Your task to perform on an android device: create a new album in the google photos Image 0: 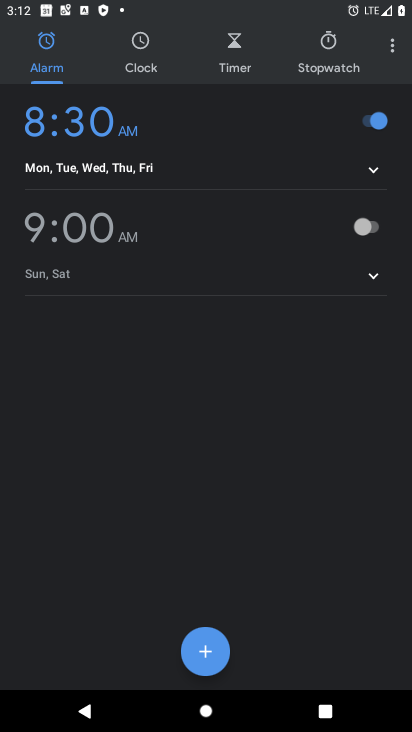
Step 0: press home button
Your task to perform on an android device: create a new album in the google photos Image 1: 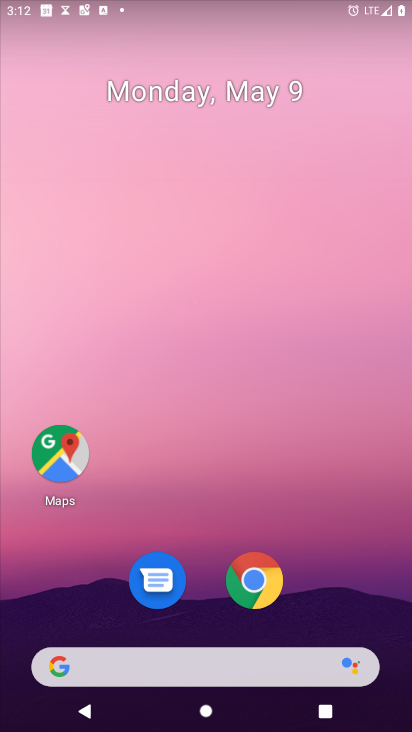
Step 1: drag from (369, 609) to (326, 103)
Your task to perform on an android device: create a new album in the google photos Image 2: 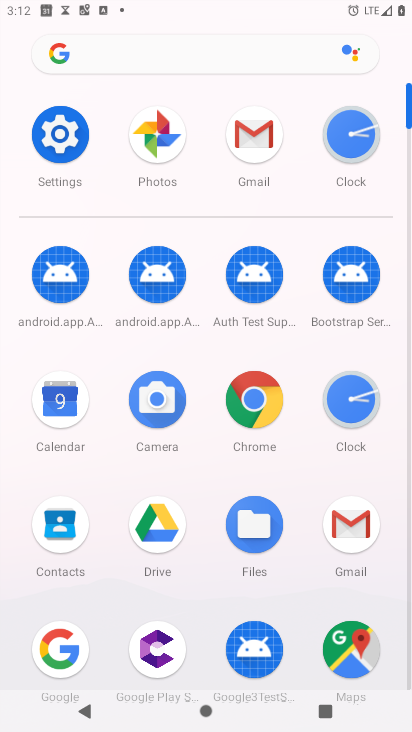
Step 2: drag from (306, 608) to (298, 311)
Your task to perform on an android device: create a new album in the google photos Image 3: 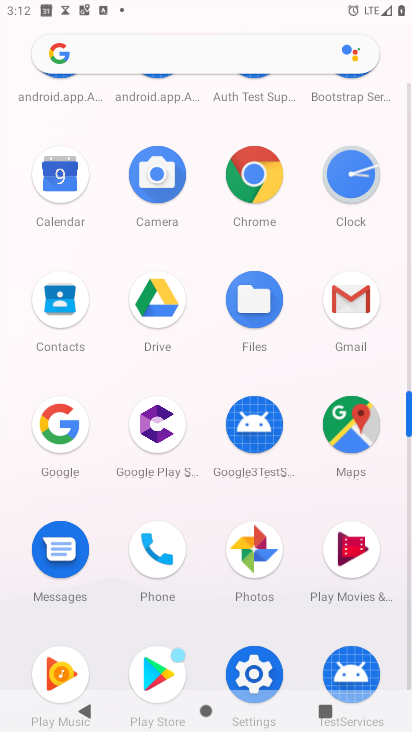
Step 3: click (284, 532)
Your task to perform on an android device: create a new album in the google photos Image 4: 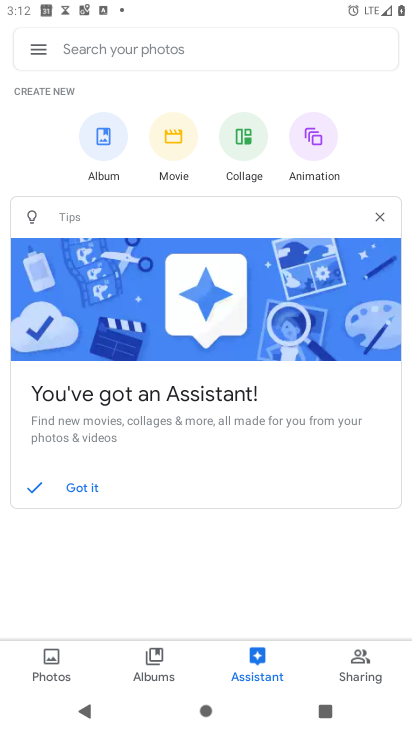
Step 4: click (156, 672)
Your task to perform on an android device: create a new album in the google photos Image 5: 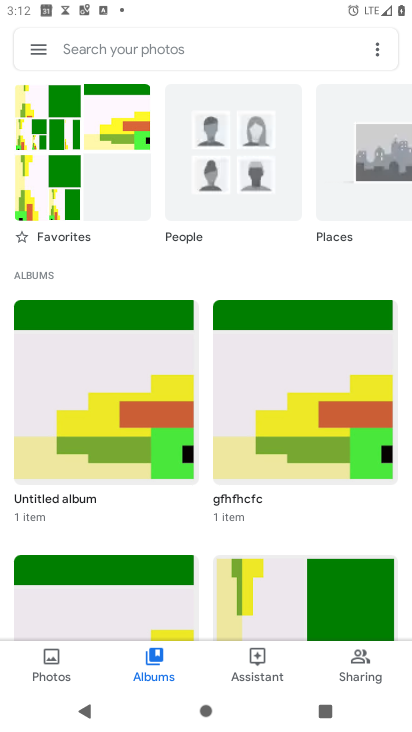
Step 5: click (208, 481)
Your task to perform on an android device: create a new album in the google photos Image 6: 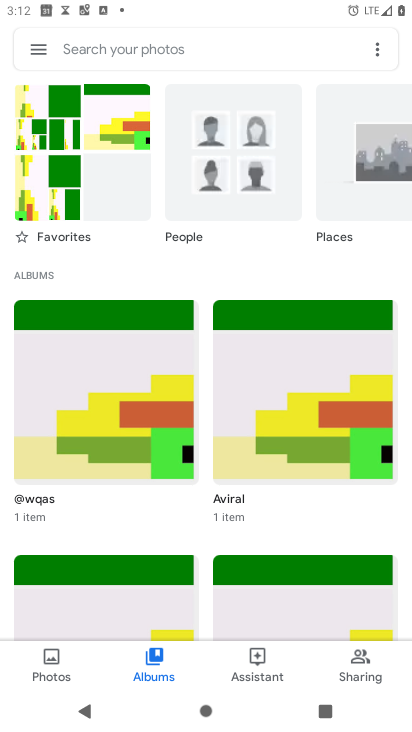
Step 6: click (376, 46)
Your task to perform on an android device: create a new album in the google photos Image 7: 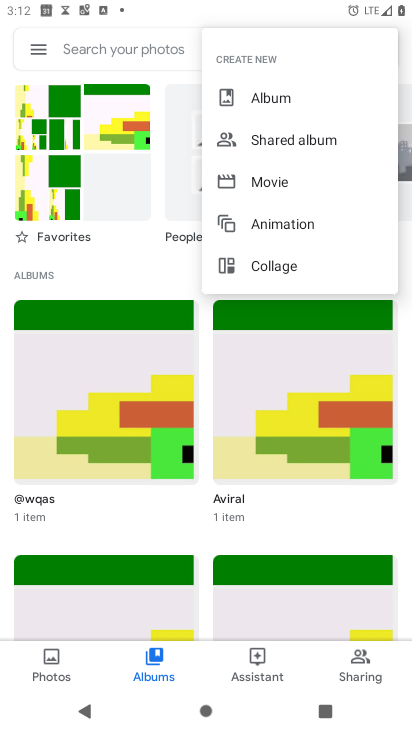
Step 7: click (265, 102)
Your task to perform on an android device: create a new album in the google photos Image 8: 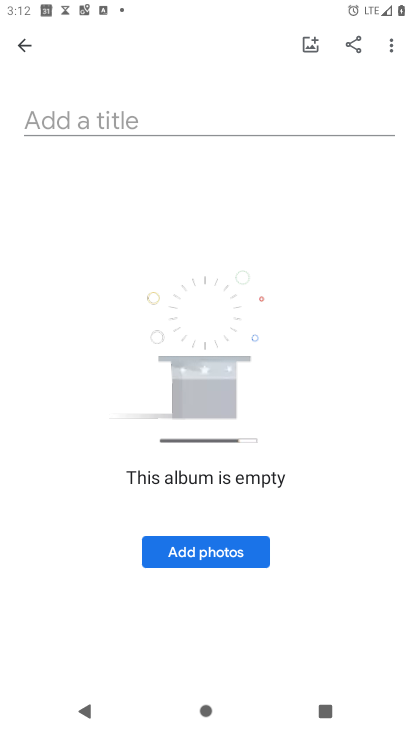
Step 8: click (157, 119)
Your task to perform on an android device: create a new album in the google photos Image 9: 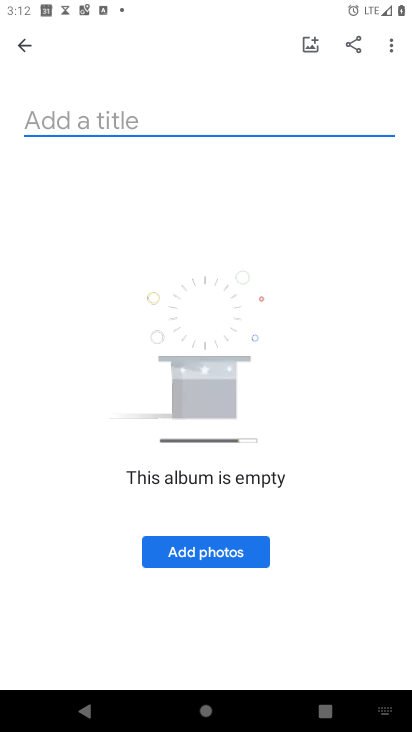
Step 9: type "tfjgjhgjhj"
Your task to perform on an android device: create a new album in the google photos Image 10: 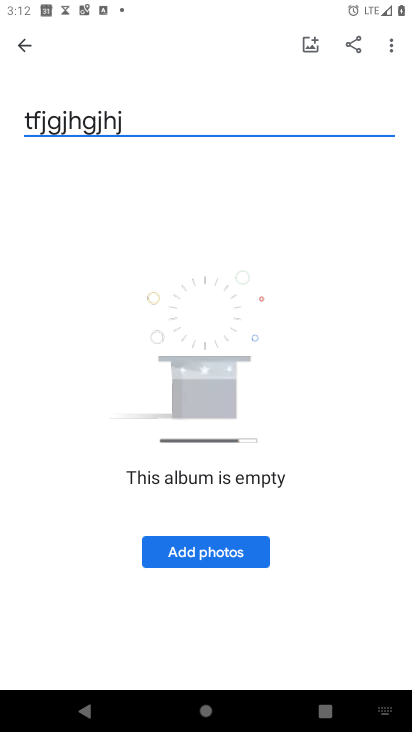
Step 10: click (250, 554)
Your task to perform on an android device: create a new album in the google photos Image 11: 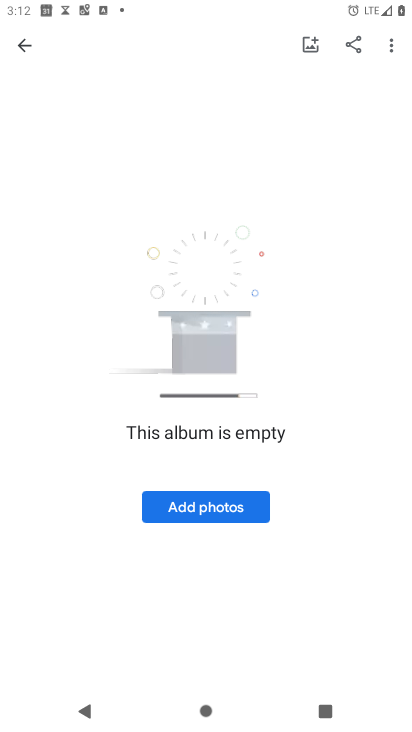
Step 11: click (233, 502)
Your task to perform on an android device: create a new album in the google photos Image 12: 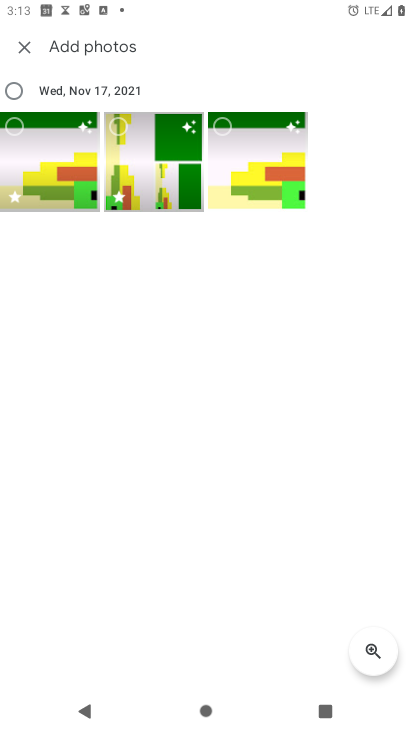
Step 12: click (158, 173)
Your task to perform on an android device: create a new album in the google photos Image 13: 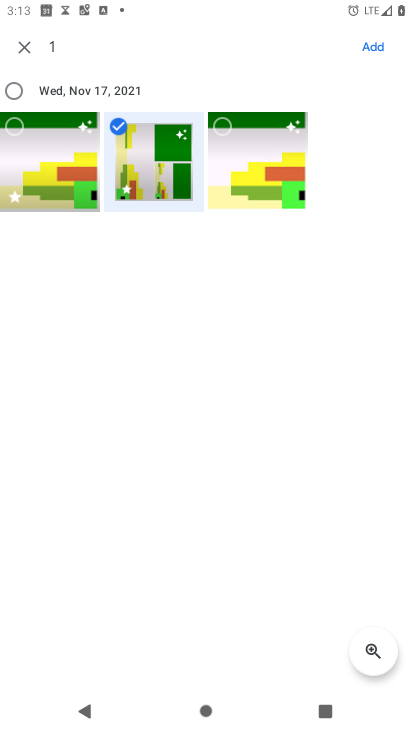
Step 13: click (376, 40)
Your task to perform on an android device: create a new album in the google photos Image 14: 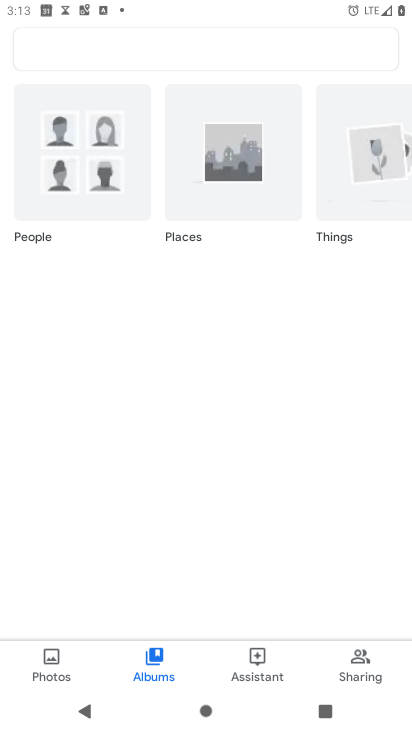
Step 14: task complete